Your task to perform on an android device: Check the weather Image 0: 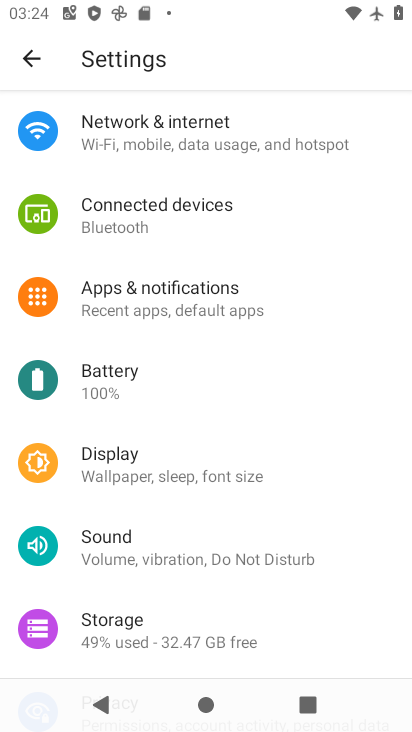
Step 0: press home button
Your task to perform on an android device: Check the weather Image 1: 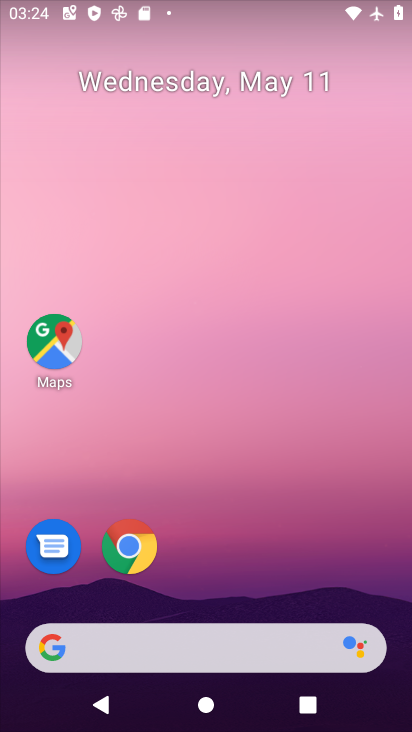
Step 1: drag from (214, 597) to (240, 21)
Your task to perform on an android device: Check the weather Image 2: 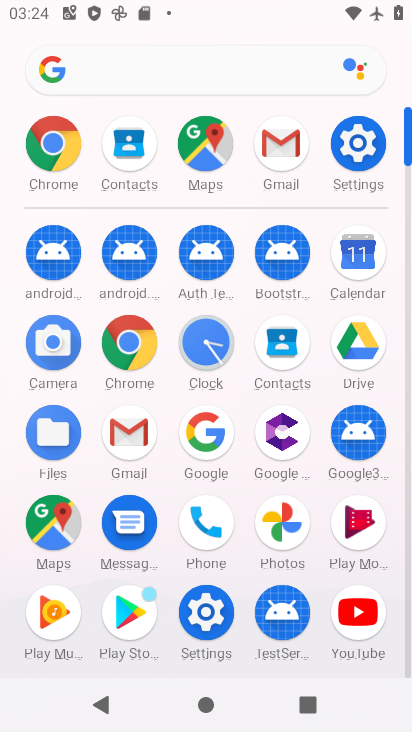
Step 2: click (157, 68)
Your task to perform on an android device: Check the weather Image 3: 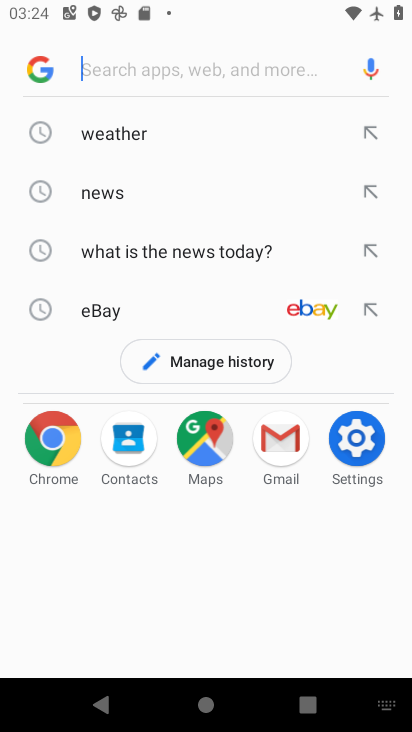
Step 3: click (180, 148)
Your task to perform on an android device: Check the weather Image 4: 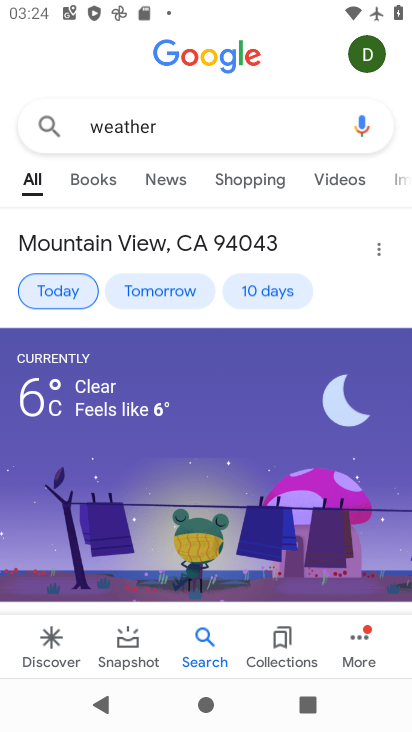
Step 4: task complete